Your task to perform on an android device: Search for Italian restaurants on Maps Image 0: 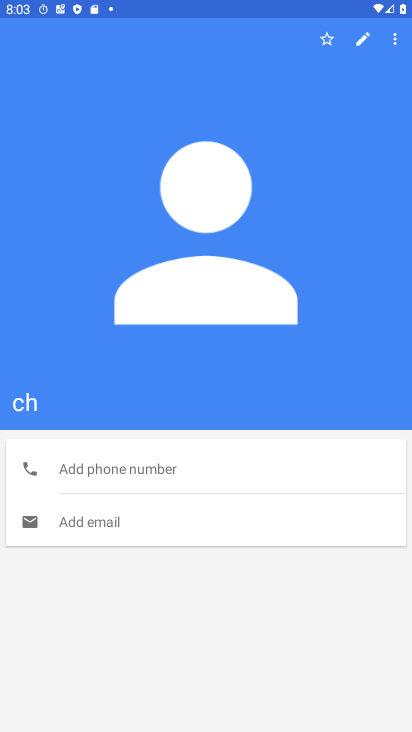
Step 0: press home button
Your task to perform on an android device: Search for Italian restaurants on Maps Image 1: 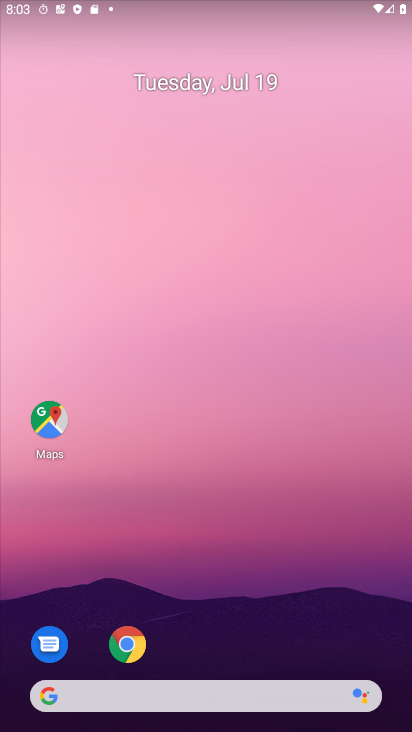
Step 1: click (61, 436)
Your task to perform on an android device: Search for Italian restaurants on Maps Image 2: 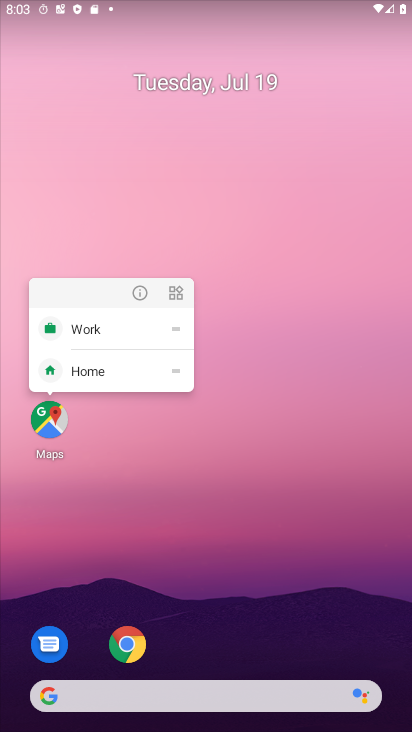
Step 2: click (51, 425)
Your task to perform on an android device: Search for Italian restaurants on Maps Image 3: 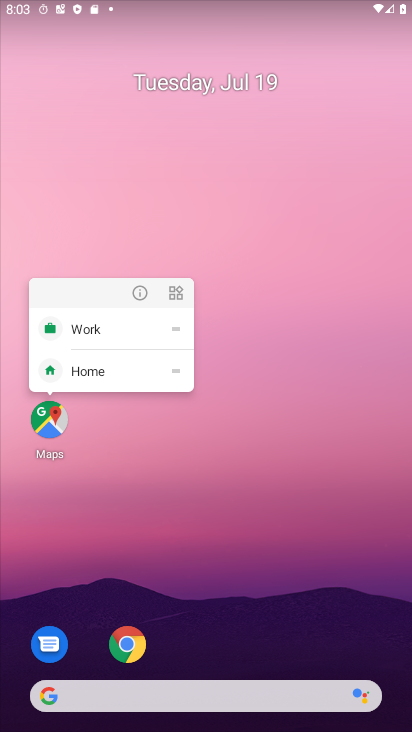
Step 3: click (43, 434)
Your task to perform on an android device: Search for Italian restaurants on Maps Image 4: 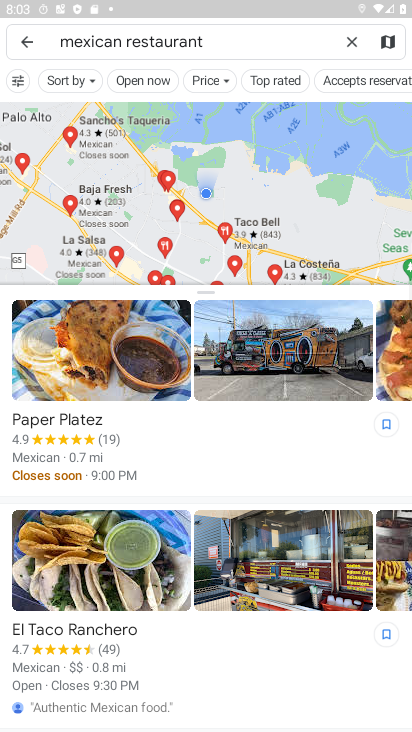
Step 4: click (355, 36)
Your task to perform on an android device: Search for Italian restaurants on Maps Image 5: 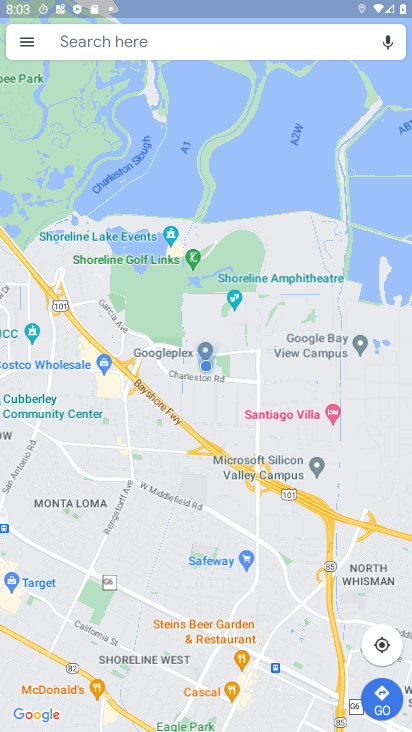
Step 5: click (60, 39)
Your task to perform on an android device: Search for Italian restaurants on Maps Image 6: 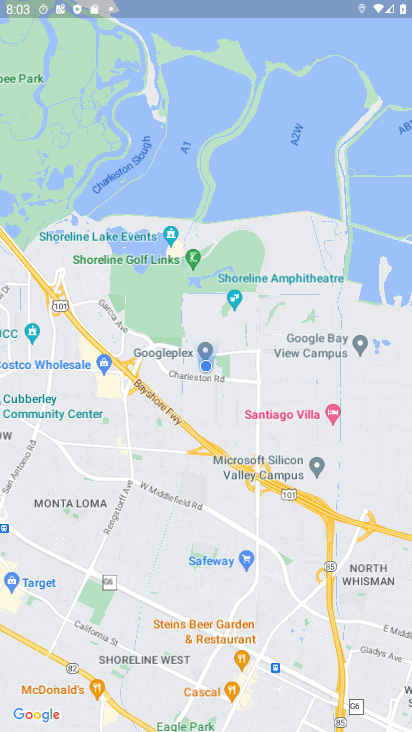
Step 6: press home button
Your task to perform on an android device: Search for Italian restaurants on Maps Image 7: 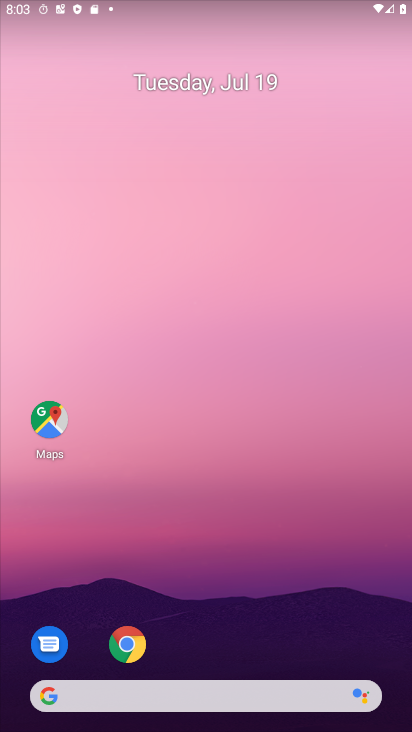
Step 7: click (50, 422)
Your task to perform on an android device: Search for Italian restaurants on Maps Image 8: 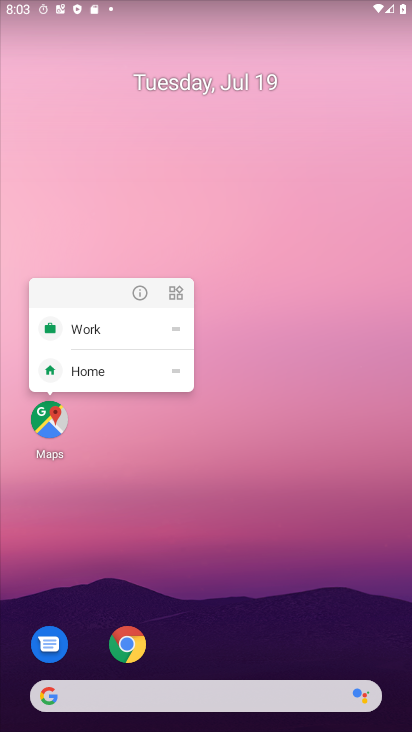
Step 8: click (46, 457)
Your task to perform on an android device: Search for Italian restaurants on Maps Image 9: 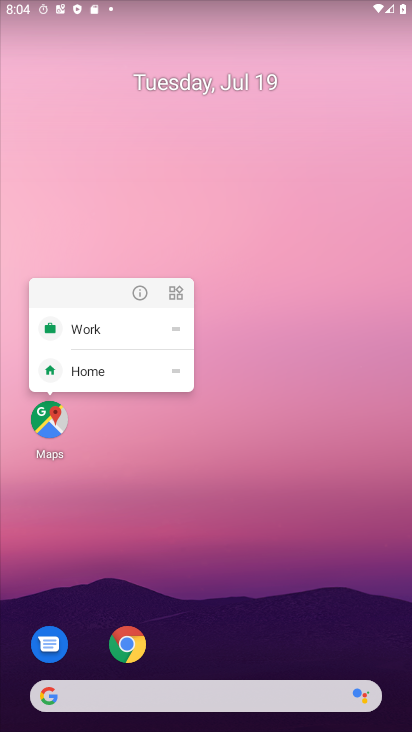
Step 9: click (49, 417)
Your task to perform on an android device: Search for Italian restaurants on Maps Image 10: 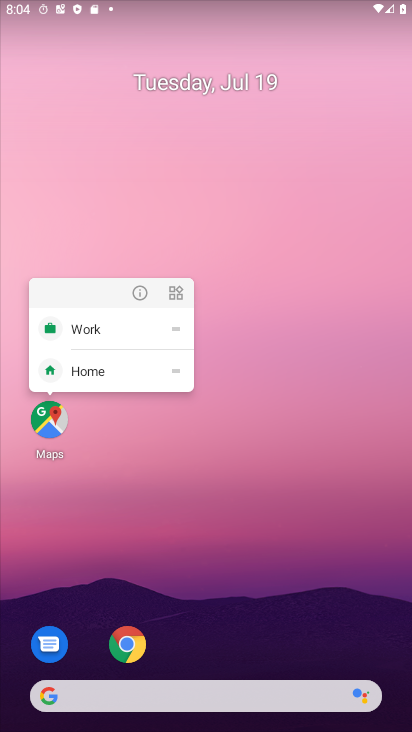
Step 10: click (46, 426)
Your task to perform on an android device: Search for Italian restaurants on Maps Image 11: 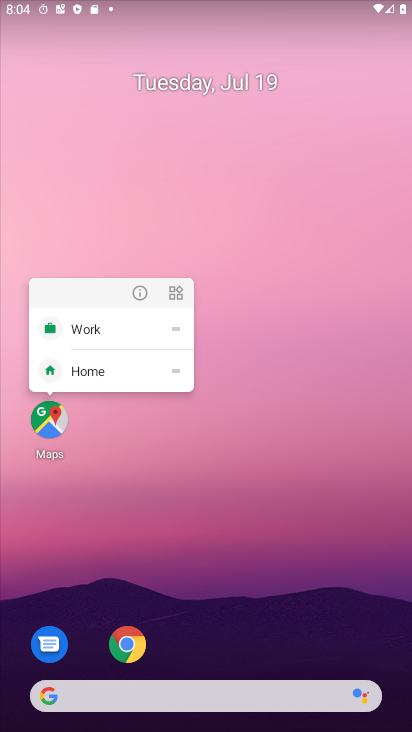
Step 11: task complete